Your task to perform on an android device: delete browsing data in the chrome app Image 0: 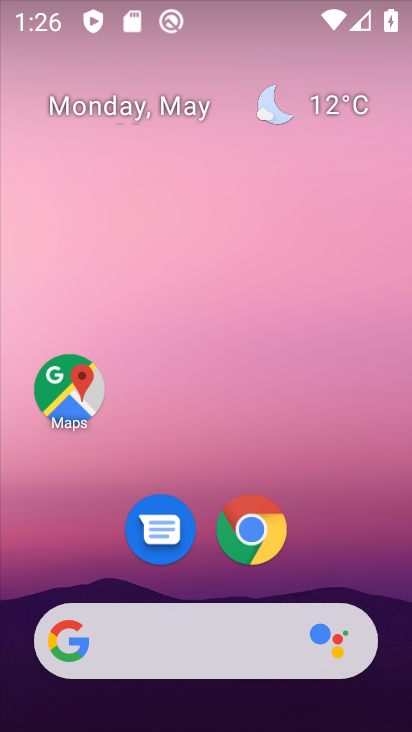
Step 0: click (252, 529)
Your task to perform on an android device: delete browsing data in the chrome app Image 1: 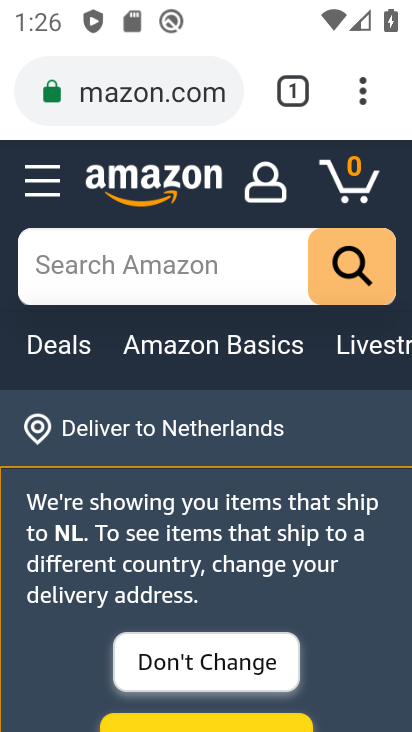
Step 1: click (364, 94)
Your task to perform on an android device: delete browsing data in the chrome app Image 2: 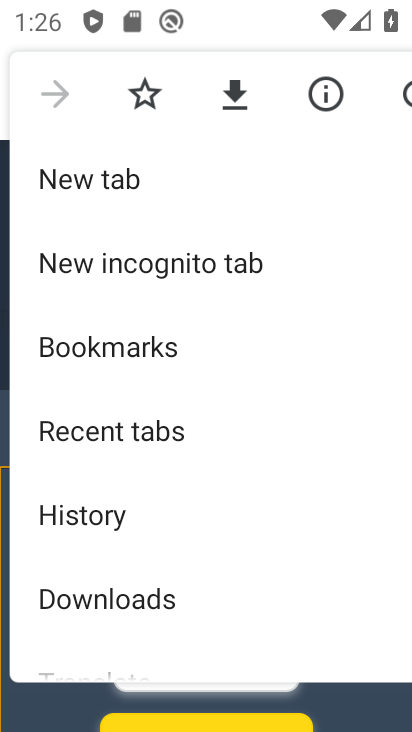
Step 2: click (97, 506)
Your task to perform on an android device: delete browsing data in the chrome app Image 3: 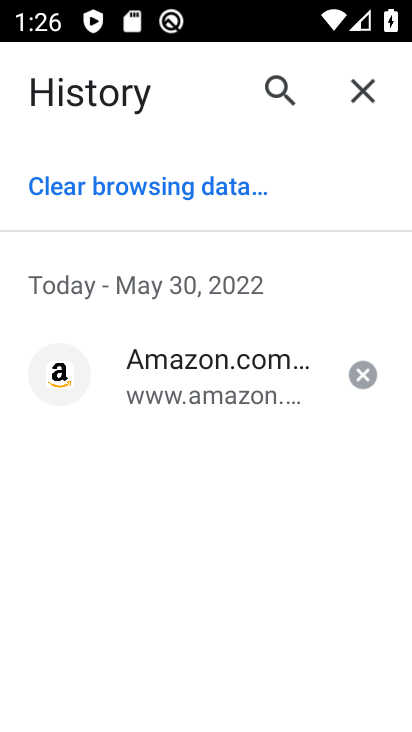
Step 3: click (130, 191)
Your task to perform on an android device: delete browsing data in the chrome app Image 4: 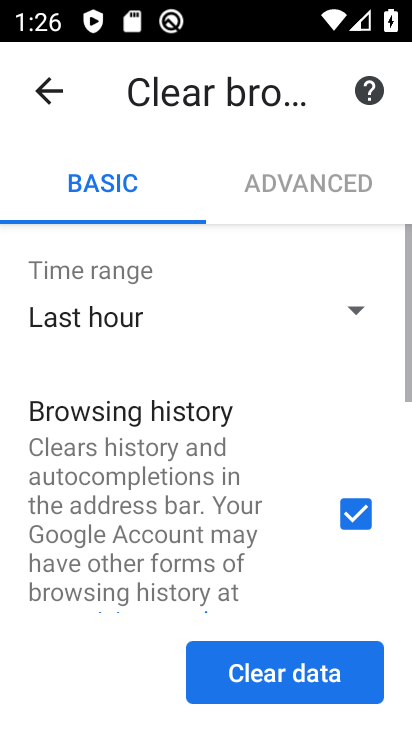
Step 4: drag from (224, 528) to (234, 199)
Your task to perform on an android device: delete browsing data in the chrome app Image 5: 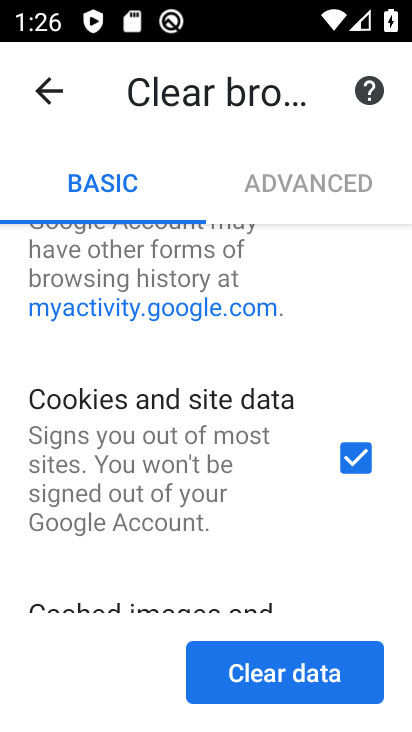
Step 5: click (352, 456)
Your task to perform on an android device: delete browsing data in the chrome app Image 6: 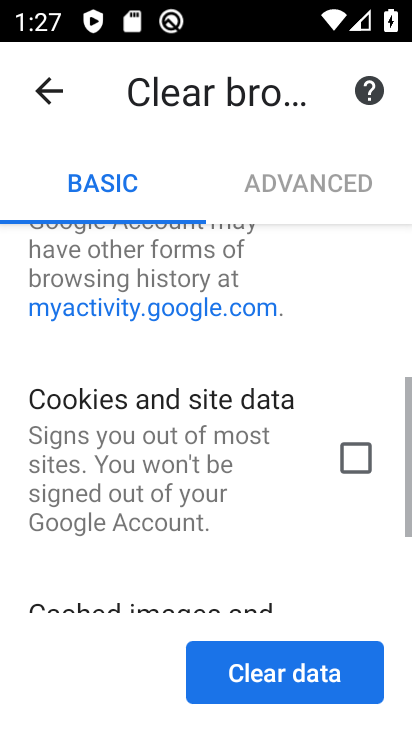
Step 6: drag from (285, 576) to (263, 250)
Your task to perform on an android device: delete browsing data in the chrome app Image 7: 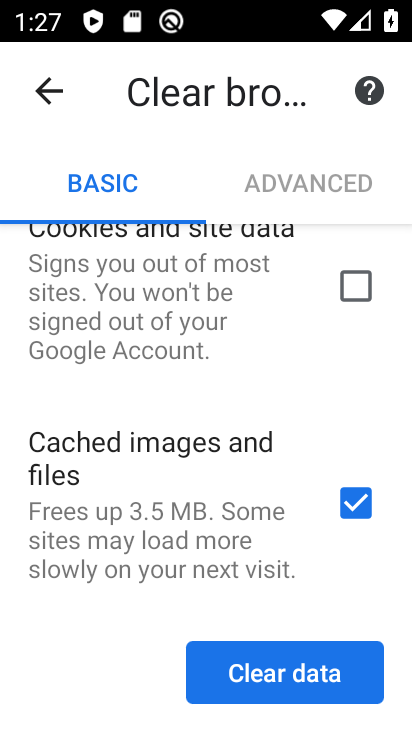
Step 7: click (359, 510)
Your task to perform on an android device: delete browsing data in the chrome app Image 8: 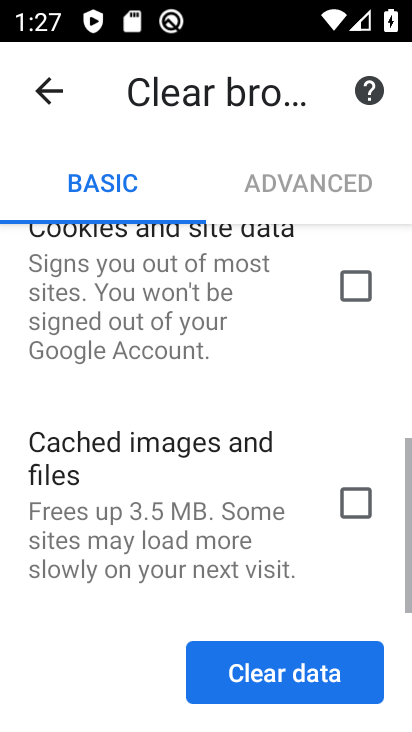
Step 8: click (314, 682)
Your task to perform on an android device: delete browsing data in the chrome app Image 9: 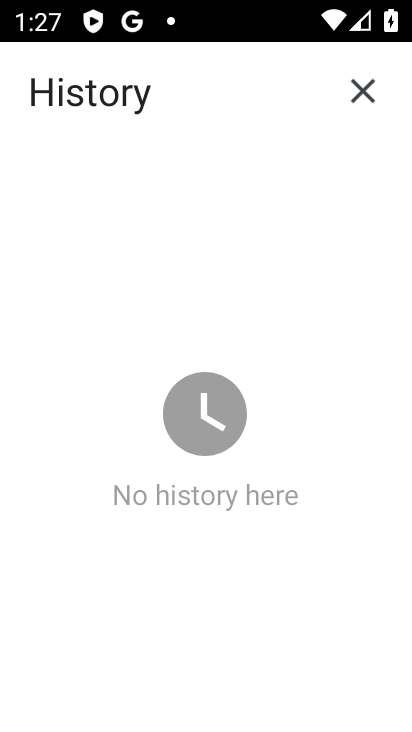
Step 9: task complete